Your task to perform on an android device: toggle sleep mode Image 0: 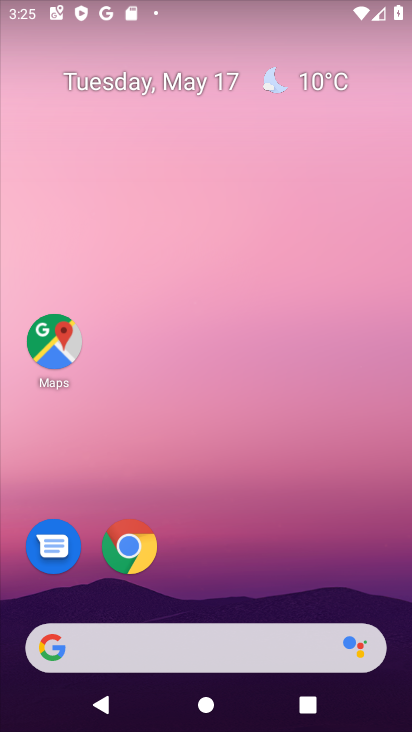
Step 0: drag from (224, 576) to (305, 216)
Your task to perform on an android device: toggle sleep mode Image 1: 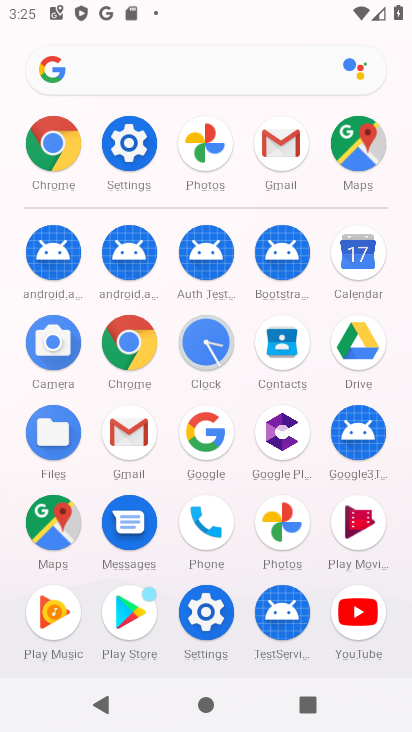
Step 1: click (128, 123)
Your task to perform on an android device: toggle sleep mode Image 2: 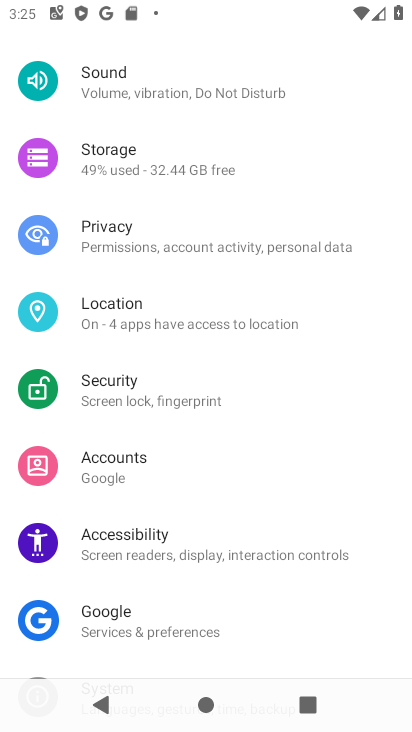
Step 2: drag from (151, 114) to (177, 530)
Your task to perform on an android device: toggle sleep mode Image 3: 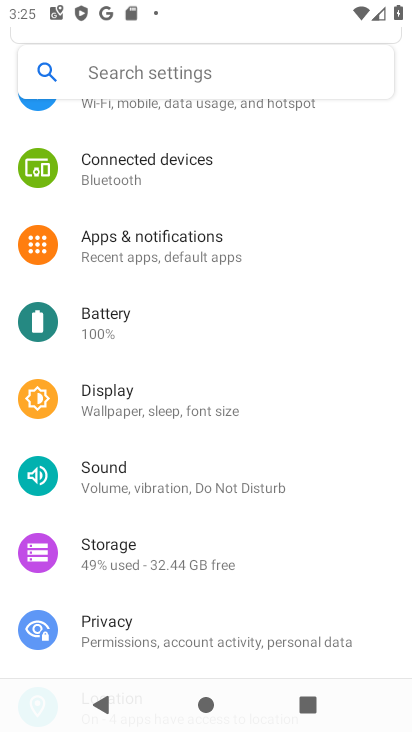
Step 3: click (257, 75)
Your task to perform on an android device: toggle sleep mode Image 4: 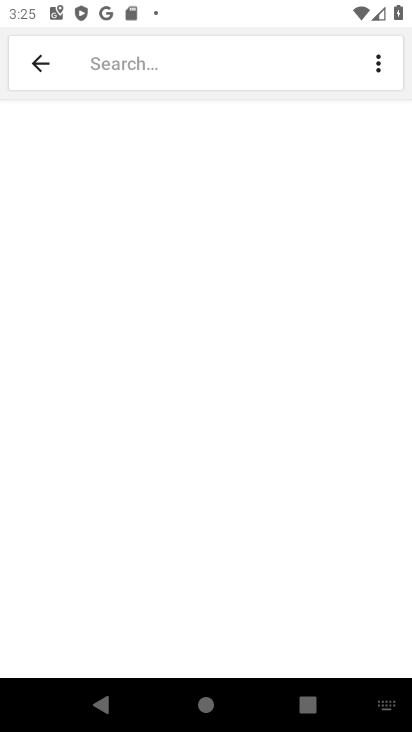
Step 4: type "sleep mode"
Your task to perform on an android device: toggle sleep mode Image 5: 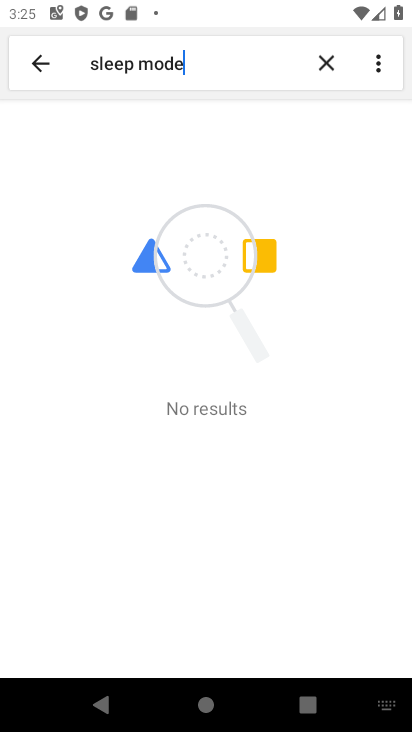
Step 5: task complete